Your task to perform on an android device: search for starred emails in the gmail app Image 0: 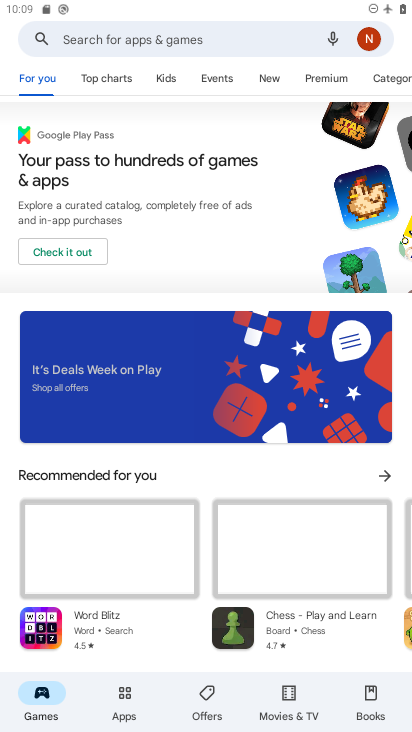
Step 0: press home button
Your task to perform on an android device: search for starred emails in the gmail app Image 1: 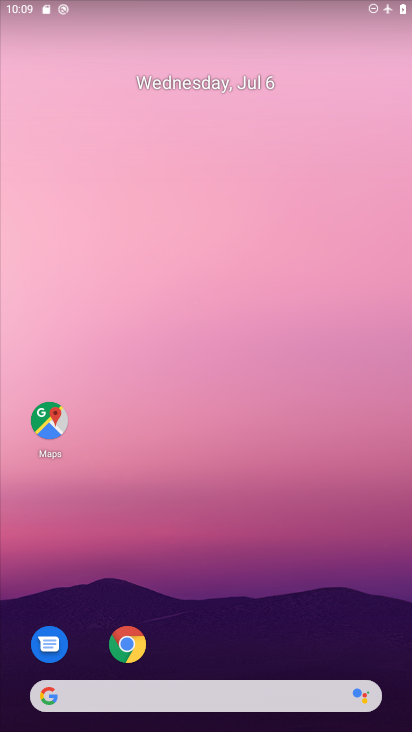
Step 1: drag from (251, 613) to (258, 152)
Your task to perform on an android device: search for starred emails in the gmail app Image 2: 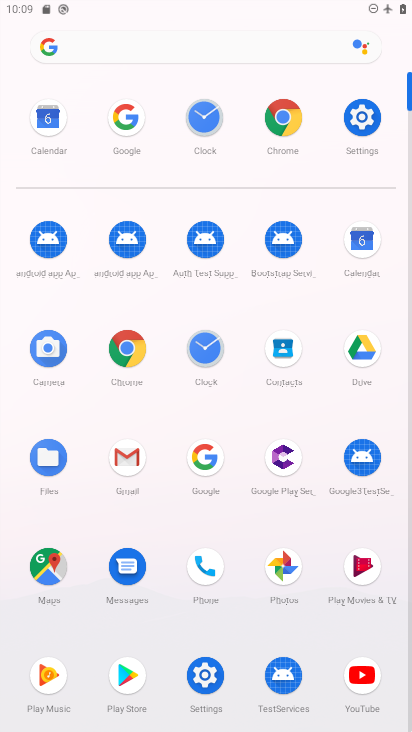
Step 2: click (131, 464)
Your task to perform on an android device: search for starred emails in the gmail app Image 3: 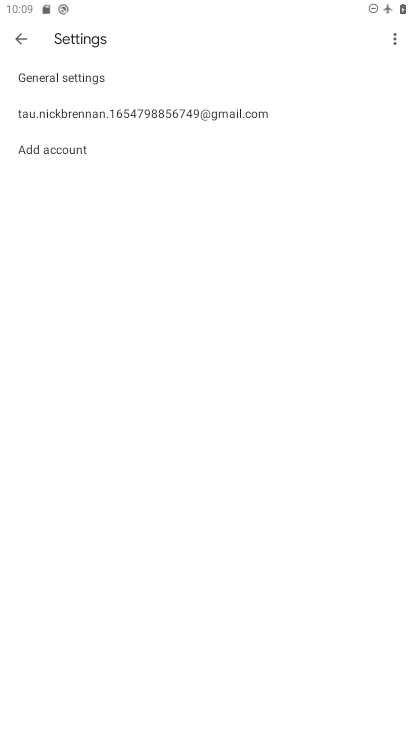
Step 3: click (12, 41)
Your task to perform on an android device: search for starred emails in the gmail app Image 4: 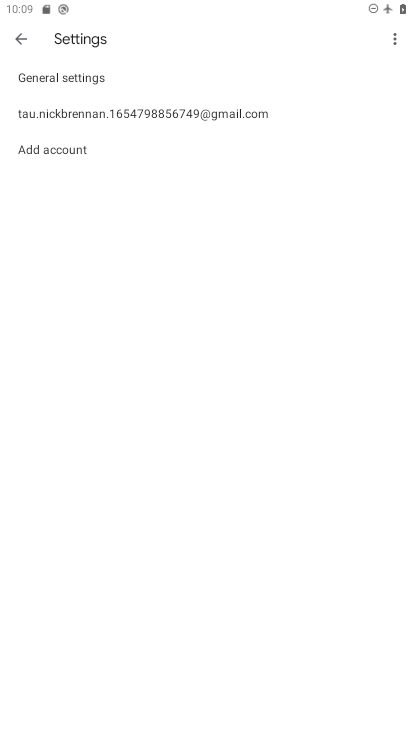
Step 4: click (12, 41)
Your task to perform on an android device: search for starred emails in the gmail app Image 5: 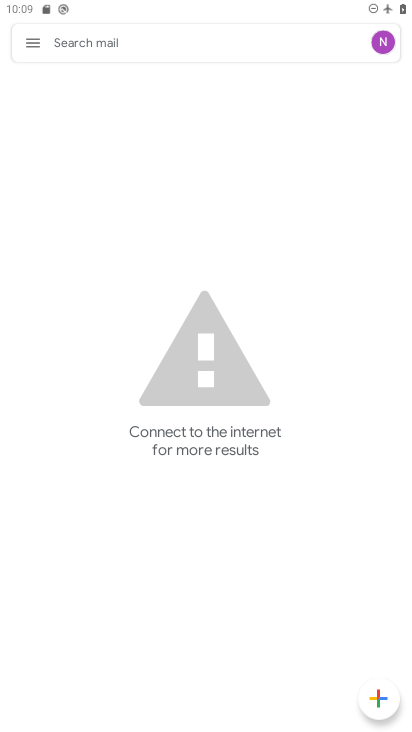
Step 5: click (29, 48)
Your task to perform on an android device: search for starred emails in the gmail app Image 6: 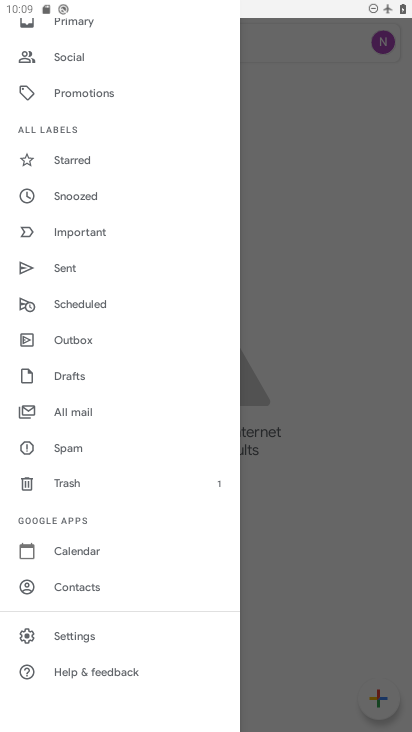
Step 6: click (98, 165)
Your task to perform on an android device: search for starred emails in the gmail app Image 7: 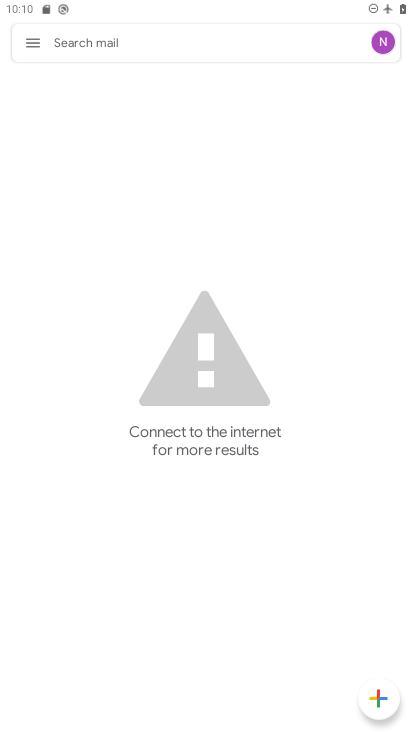
Step 7: task complete